Your task to perform on an android device: Open Yahoo.com Image 0: 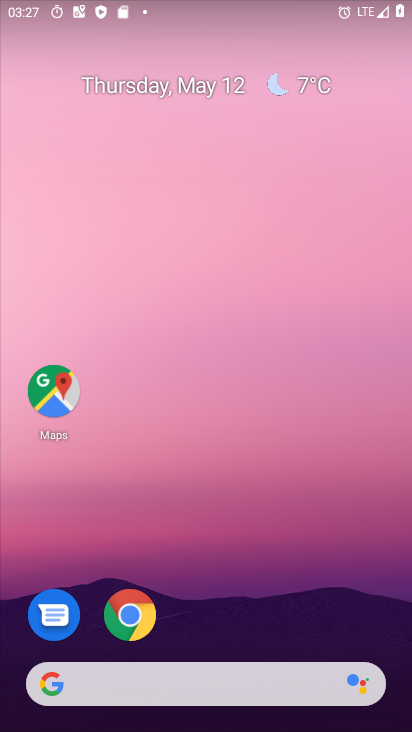
Step 0: click (130, 609)
Your task to perform on an android device: Open Yahoo.com Image 1: 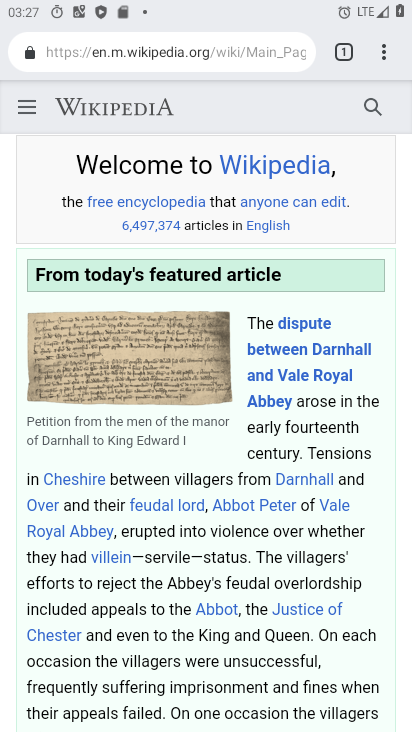
Step 1: click (126, 42)
Your task to perform on an android device: Open Yahoo.com Image 2: 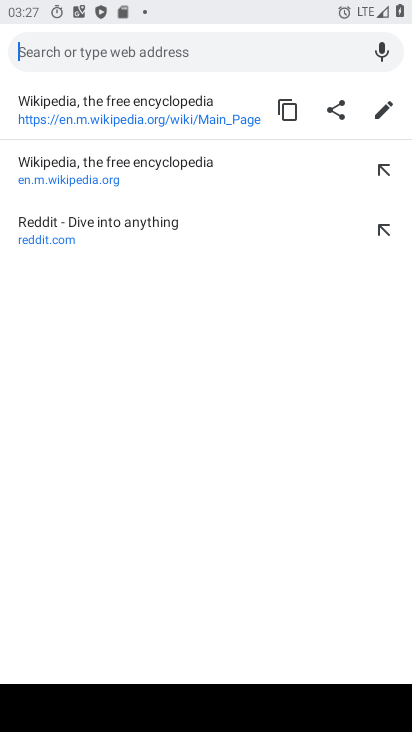
Step 2: type "yahoo.com"
Your task to perform on an android device: Open Yahoo.com Image 3: 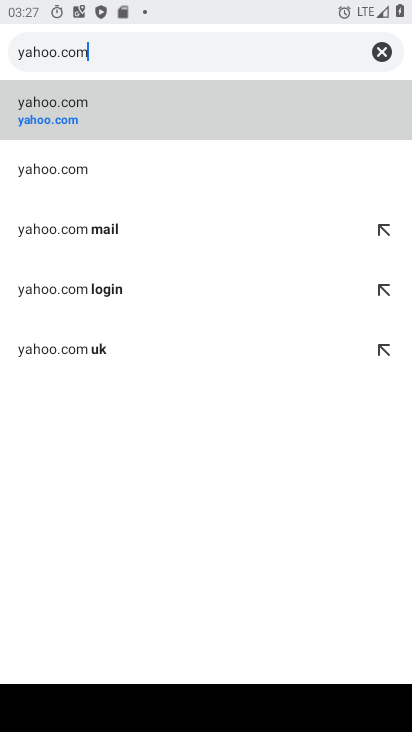
Step 3: click (243, 99)
Your task to perform on an android device: Open Yahoo.com Image 4: 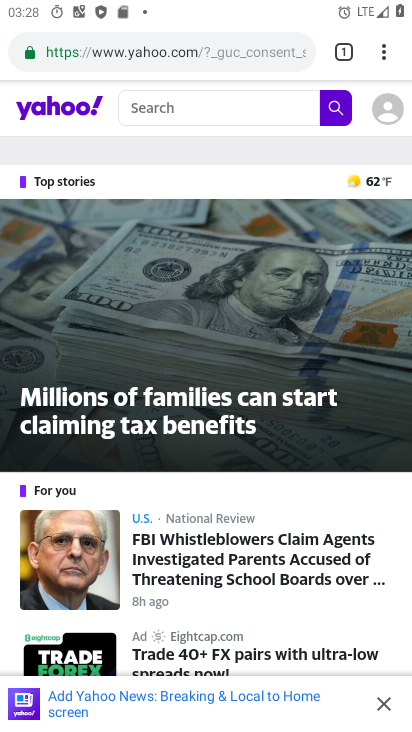
Step 4: task complete